Your task to perform on an android device: clear all cookies in the chrome app Image 0: 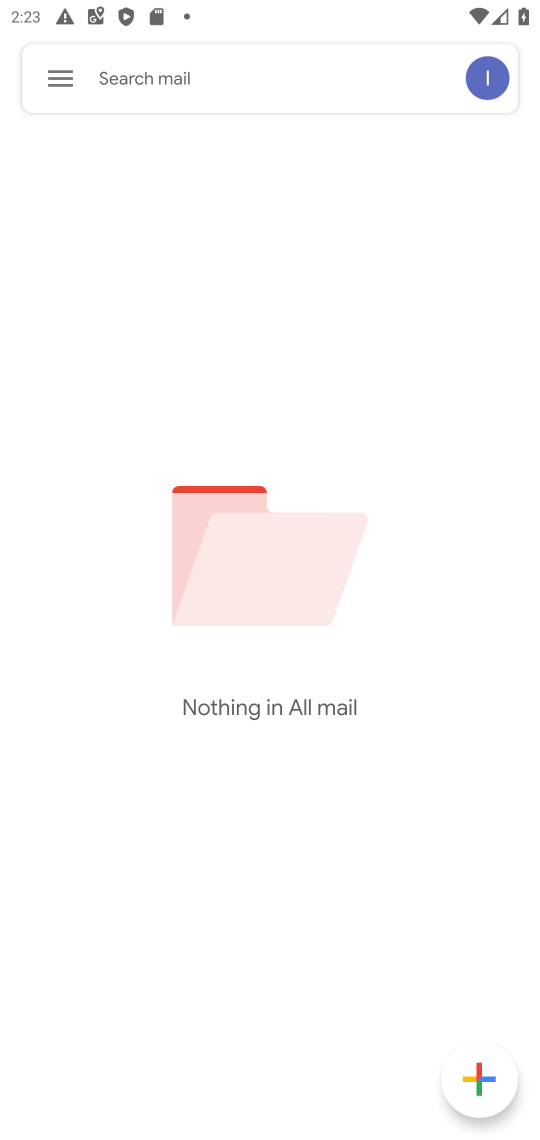
Step 0: press home button
Your task to perform on an android device: clear all cookies in the chrome app Image 1: 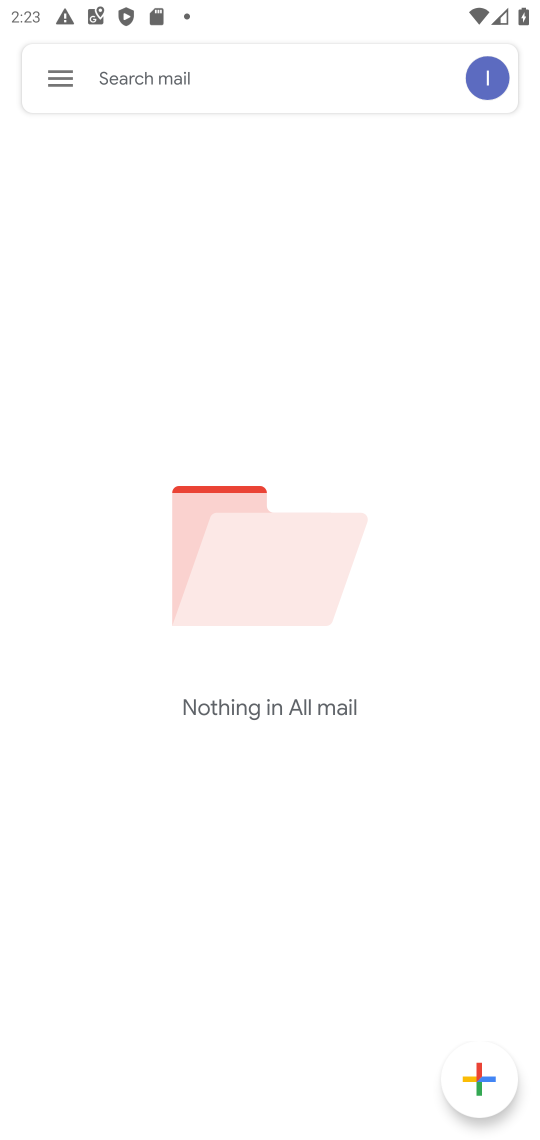
Step 1: press home button
Your task to perform on an android device: clear all cookies in the chrome app Image 2: 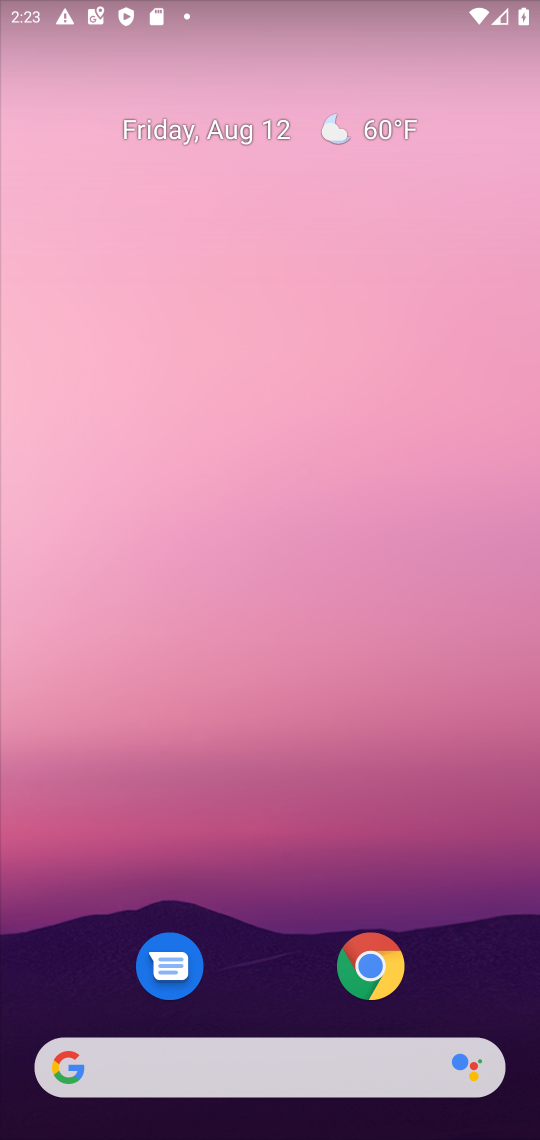
Step 2: drag from (284, 890) to (289, 216)
Your task to perform on an android device: clear all cookies in the chrome app Image 3: 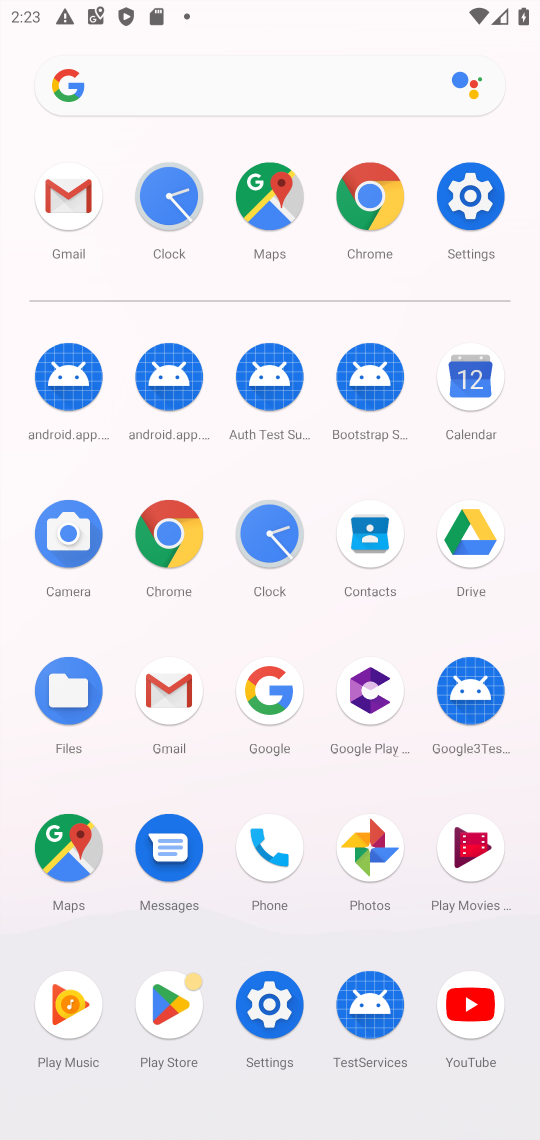
Step 3: click (170, 543)
Your task to perform on an android device: clear all cookies in the chrome app Image 4: 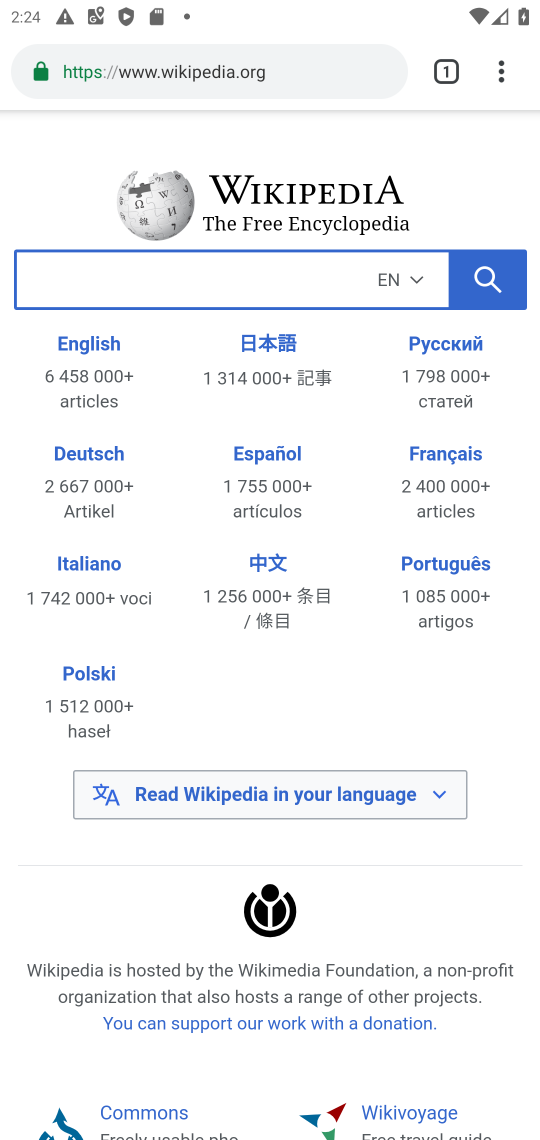
Step 4: task complete